Your task to perform on an android device: set an alarm Image 0: 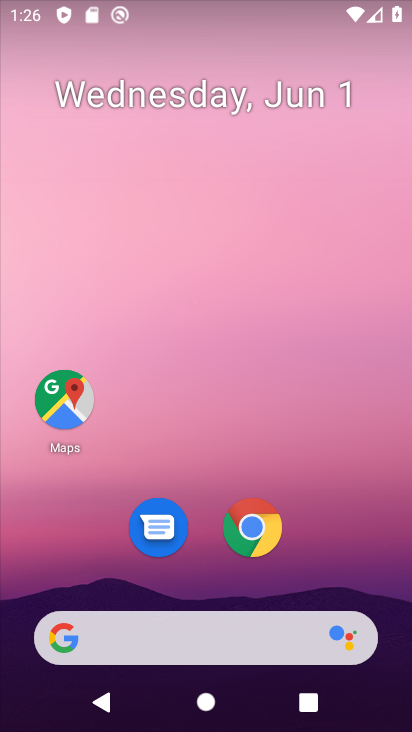
Step 0: drag from (337, 567) to (167, 107)
Your task to perform on an android device: set an alarm Image 1: 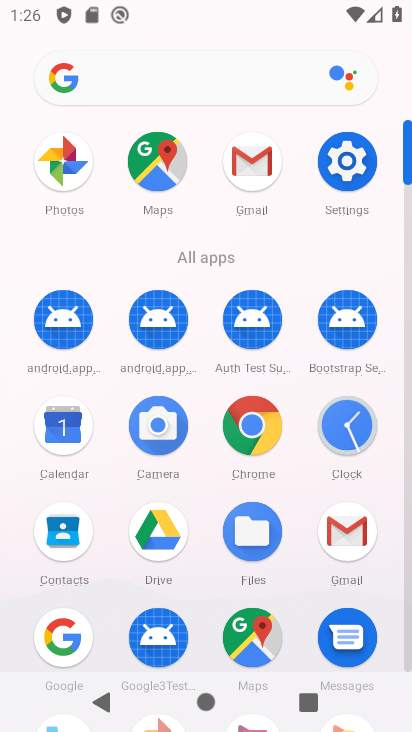
Step 1: click (349, 451)
Your task to perform on an android device: set an alarm Image 2: 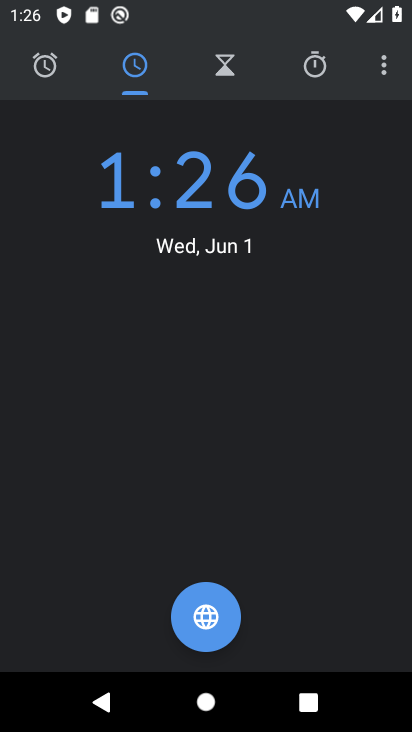
Step 2: click (60, 80)
Your task to perform on an android device: set an alarm Image 3: 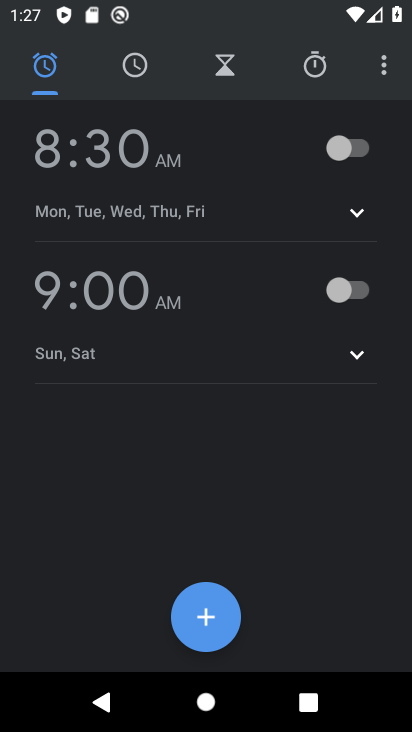
Step 3: click (224, 609)
Your task to perform on an android device: set an alarm Image 4: 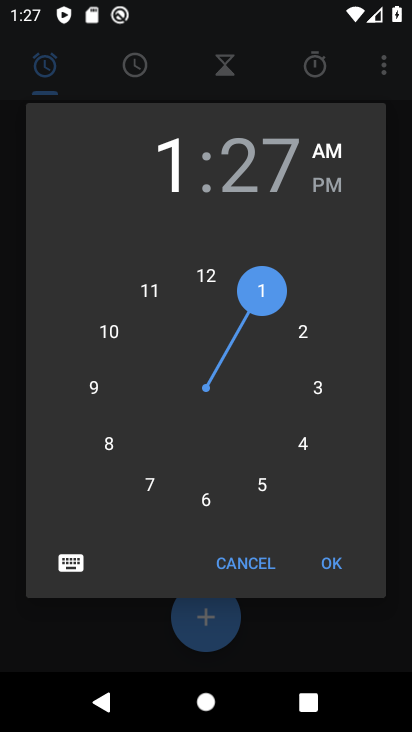
Step 4: click (325, 573)
Your task to perform on an android device: set an alarm Image 5: 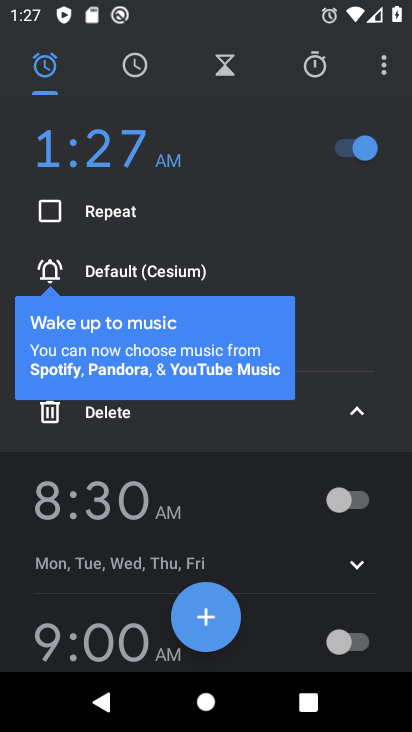
Step 5: task complete